Your task to perform on an android device: toggle show notifications on the lock screen Image 0: 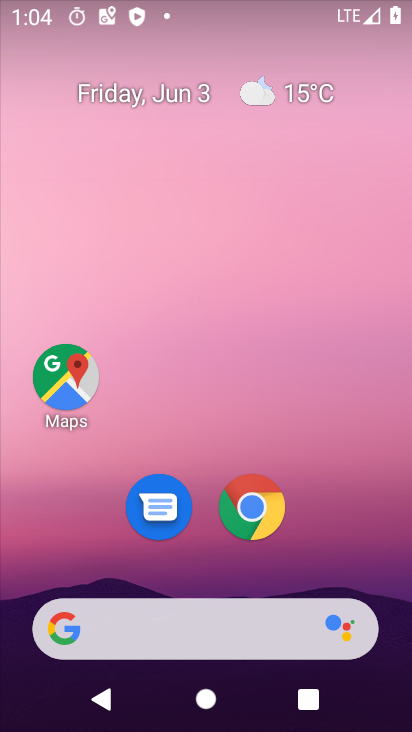
Step 0: drag from (395, 649) to (287, 104)
Your task to perform on an android device: toggle show notifications on the lock screen Image 1: 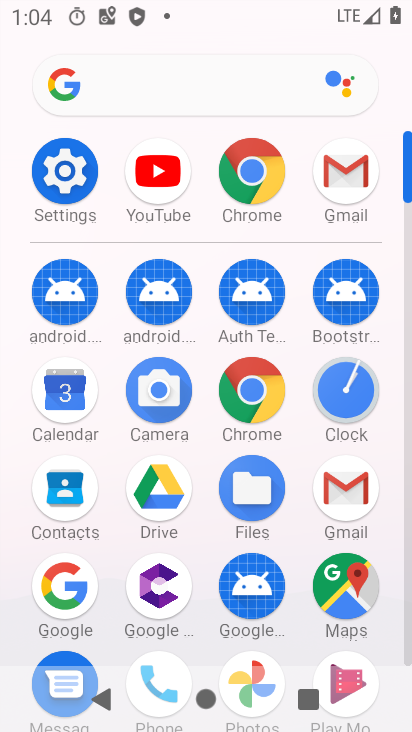
Step 1: click (67, 189)
Your task to perform on an android device: toggle show notifications on the lock screen Image 2: 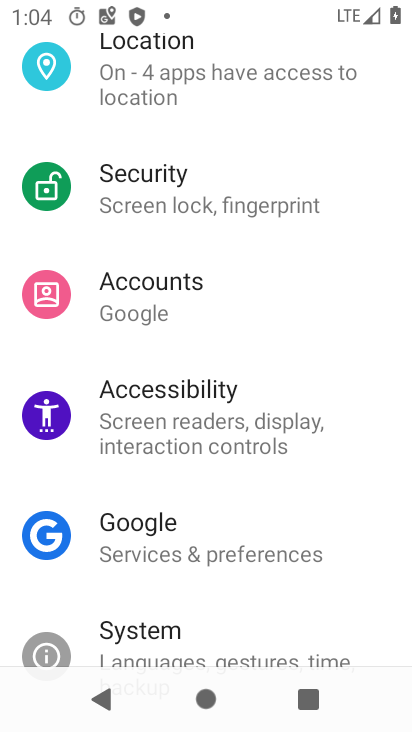
Step 2: drag from (175, 139) to (237, 642)
Your task to perform on an android device: toggle show notifications on the lock screen Image 3: 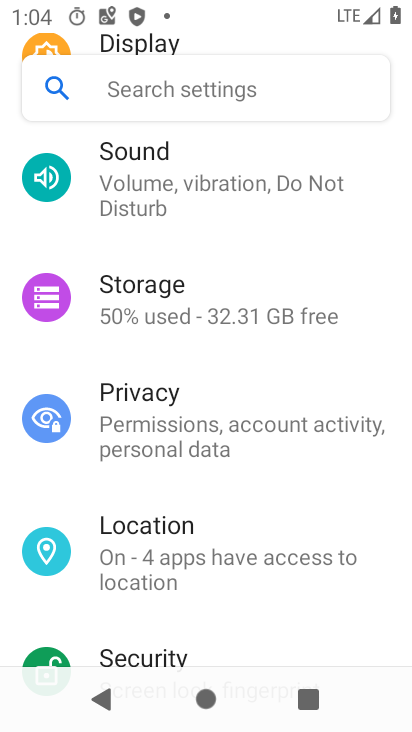
Step 3: drag from (165, 186) to (196, 727)
Your task to perform on an android device: toggle show notifications on the lock screen Image 4: 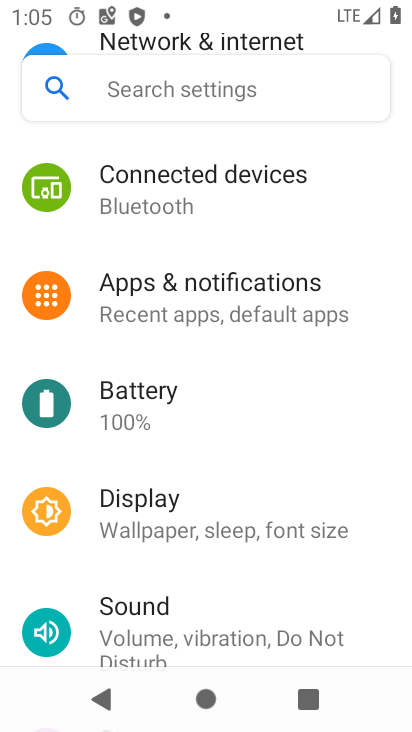
Step 4: click (220, 293)
Your task to perform on an android device: toggle show notifications on the lock screen Image 5: 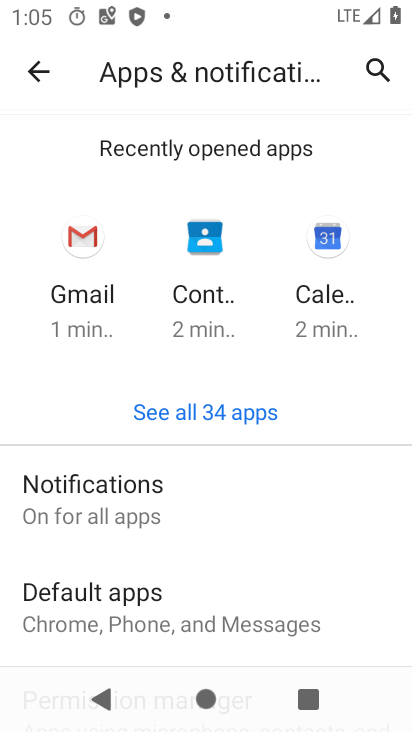
Step 5: click (214, 492)
Your task to perform on an android device: toggle show notifications on the lock screen Image 6: 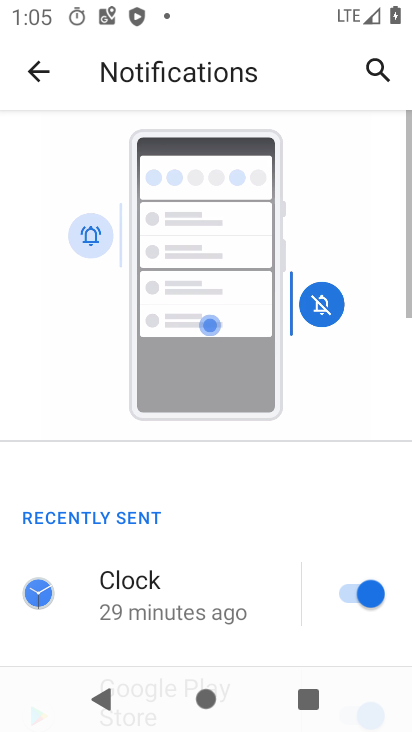
Step 6: drag from (210, 609) to (214, 19)
Your task to perform on an android device: toggle show notifications on the lock screen Image 7: 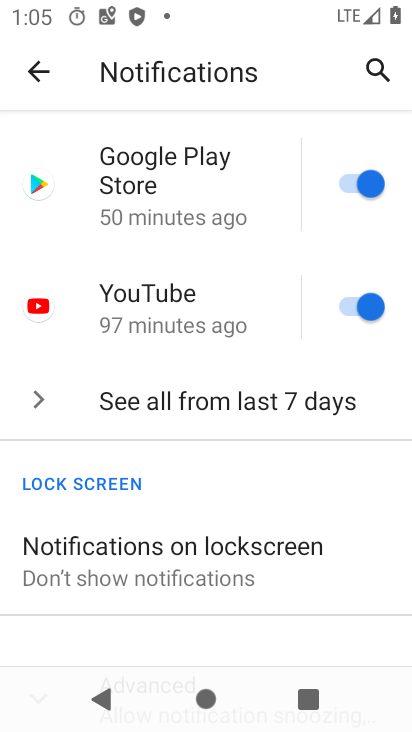
Step 7: click (295, 550)
Your task to perform on an android device: toggle show notifications on the lock screen Image 8: 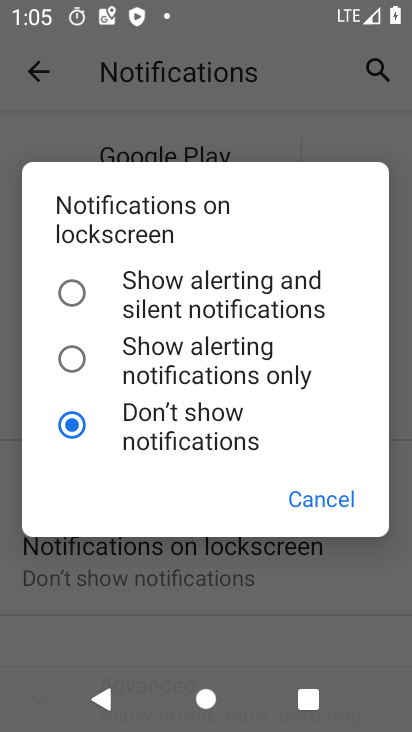
Step 8: click (69, 291)
Your task to perform on an android device: toggle show notifications on the lock screen Image 9: 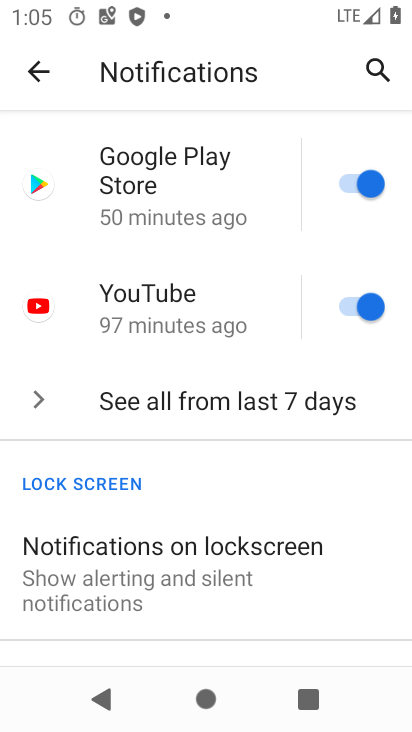
Step 9: task complete